Your task to perform on an android device: turn off smart reply in the gmail app Image 0: 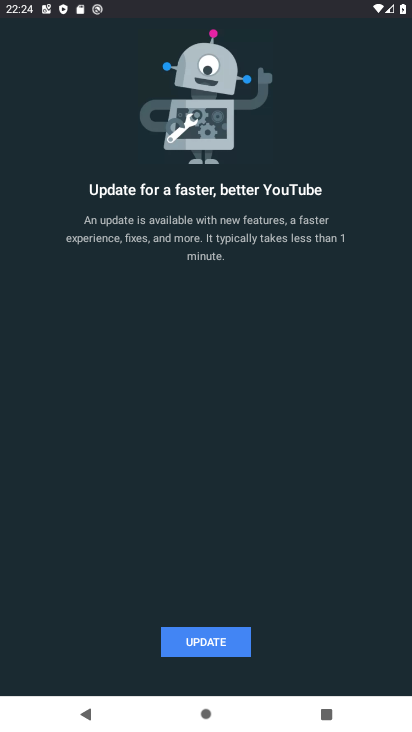
Step 0: press back button
Your task to perform on an android device: turn off smart reply in the gmail app Image 1: 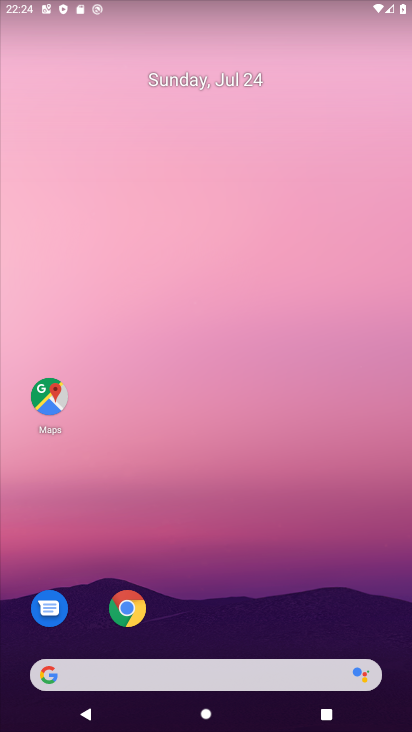
Step 1: drag from (263, 609) to (384, 36)
Your task to perform on an android device: turn off smart reply in the gmail app Image 2: 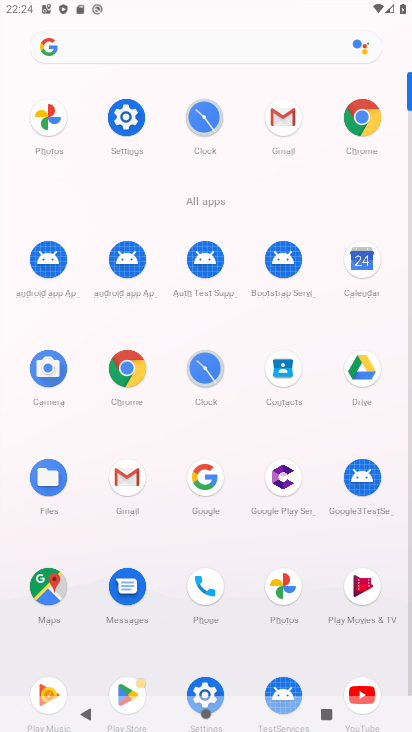
Step 2: click (124, 473)
Your task to perform on an android device: turn off smart reply in the gmail app Image 3: 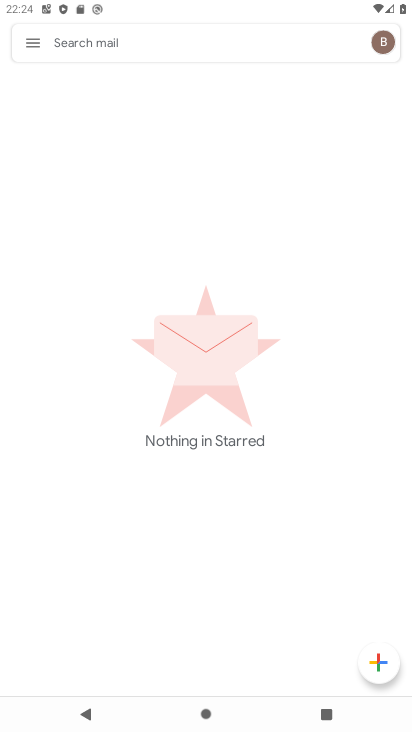
Step 3: click (27, 42)
Your task to perform on an android device: turn off smart reply in the gmail app Image 4: 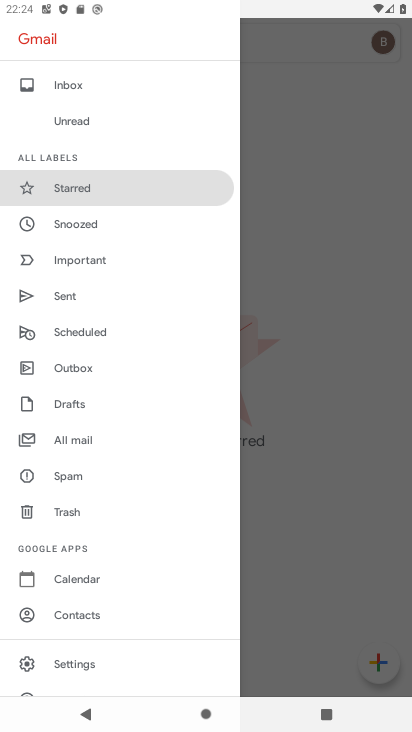
Step 4: click (49, 663)
Your task to perform on an android device: turn off smart reply in the gmail app Image 5: 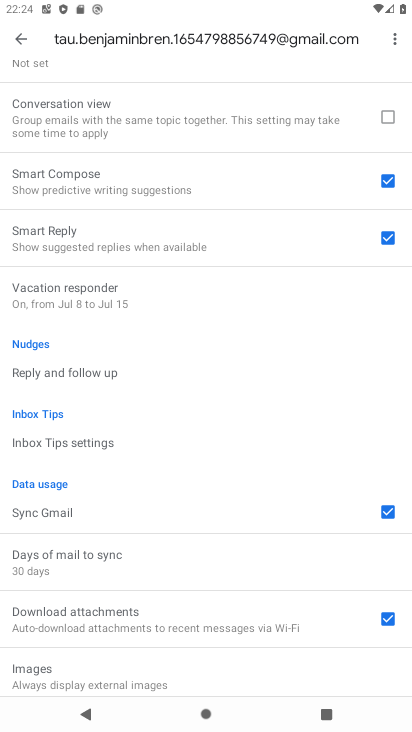
Step 5: click (378, 246)
Your task to perform on an android device: turn off smart reply in the gmail app Image 6: 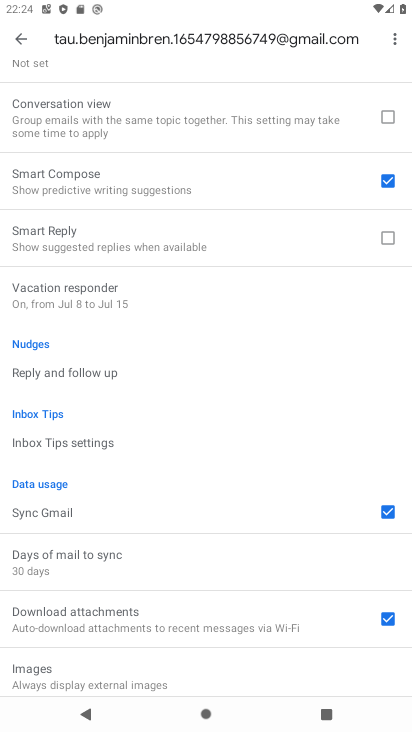
Step 6: task complete